Your task to perform on an android device: Set the phone to "Do not disturb". Image 0: 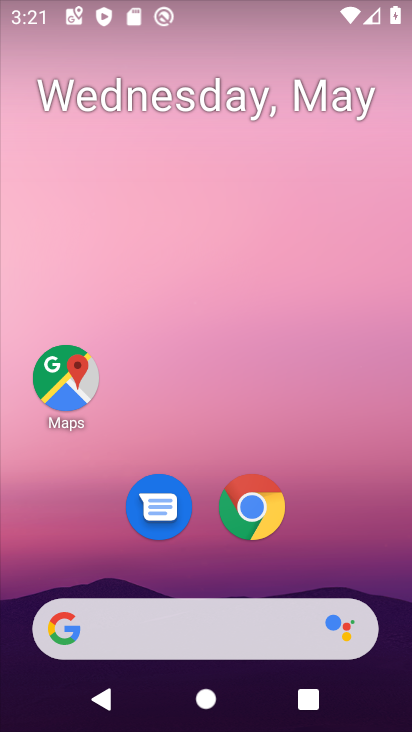
Step 0: drag from (165, 34) to (154, 595)
Your task to perform on an android device: Set the phone to "Do not disturb". Image 1: 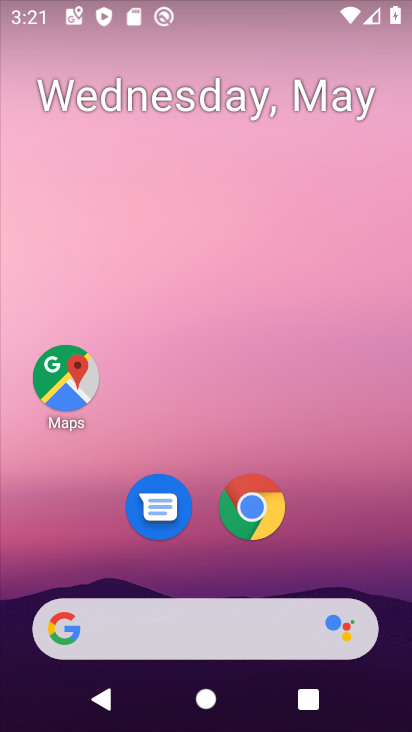
Step 1: drag from (198, 4) to (260, 617)
Your task to perform on an android device: Set the phone to "Do not disturb". Image 2: 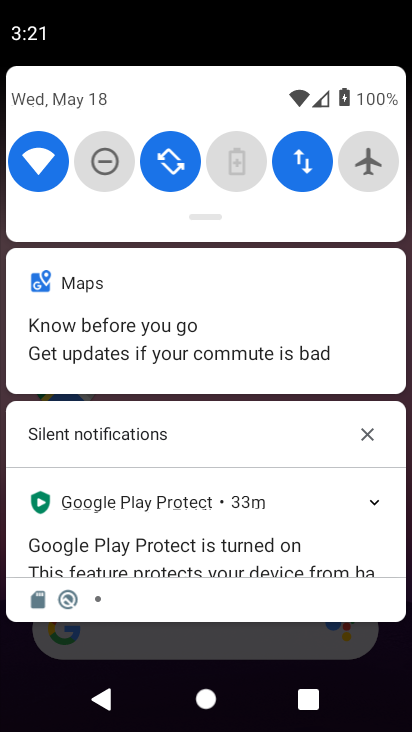
Step 2: click (106, 156)
Your task to perform on an android device: Set the phone to "Do not disturb". Image 3: 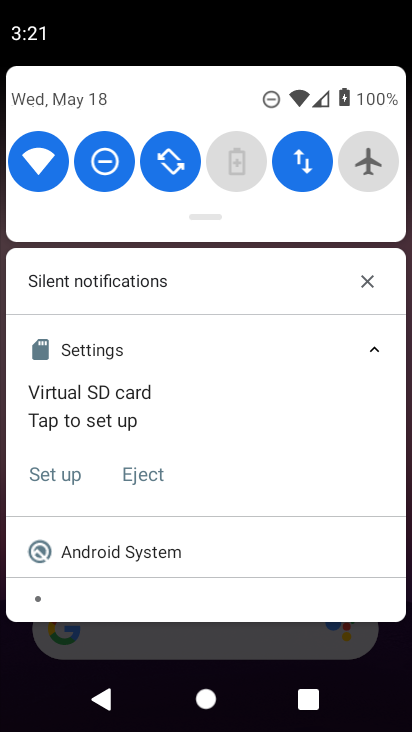
Step 3: task complete